Your task to perform on an android device: set the stopwatch Image 0: 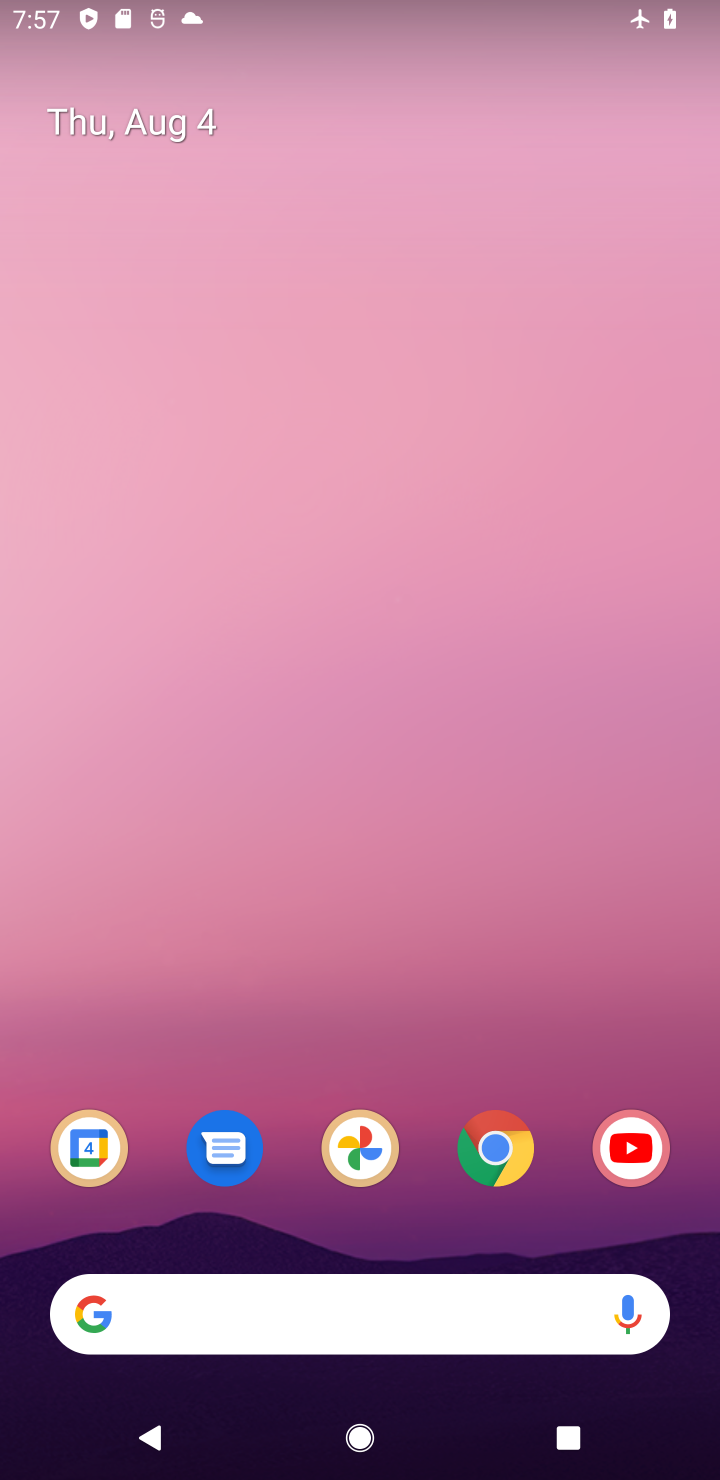
Step 0: drag from (576, 1056) to (181, 29)
Your task to perform on an android device: set the stopwatch Image 1: 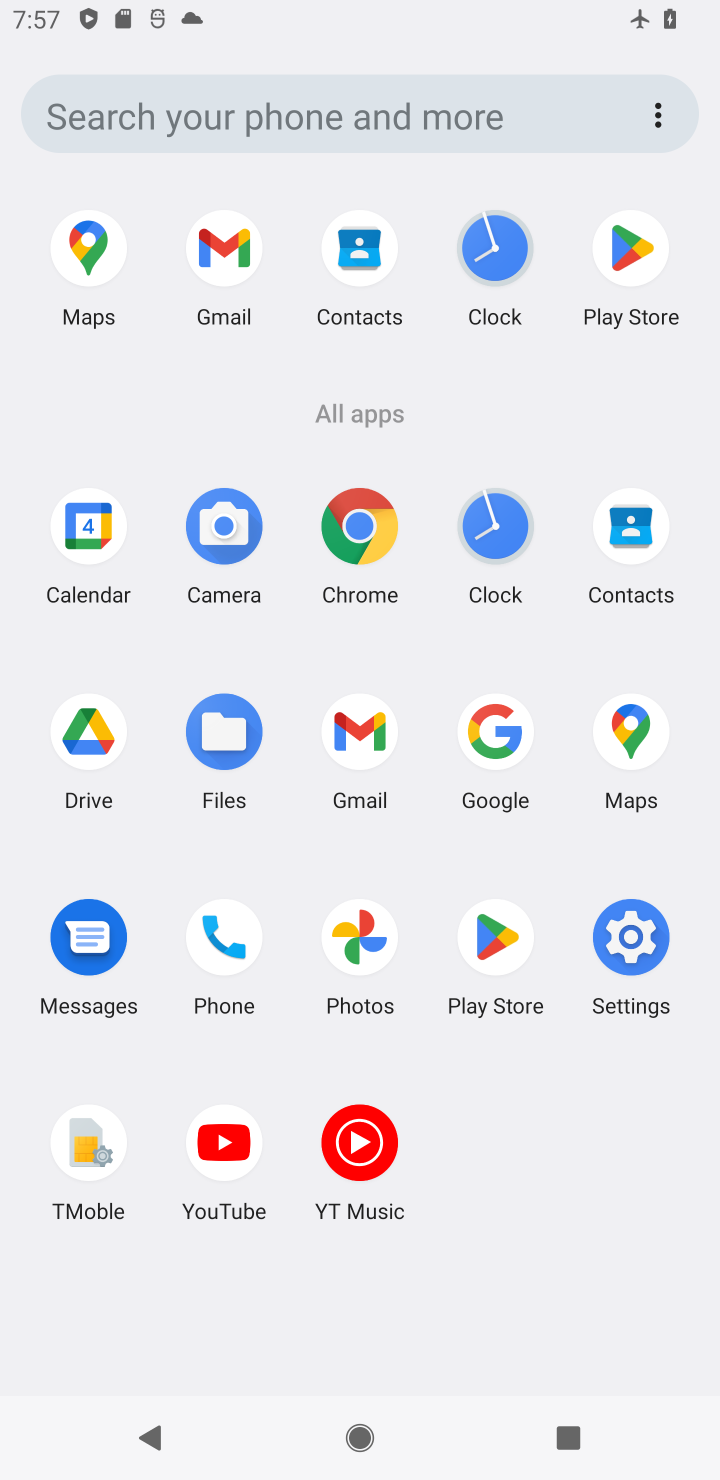
Step 1: click (494, 253)
Your task to perform on an android device: set the stopwatch Image 2: 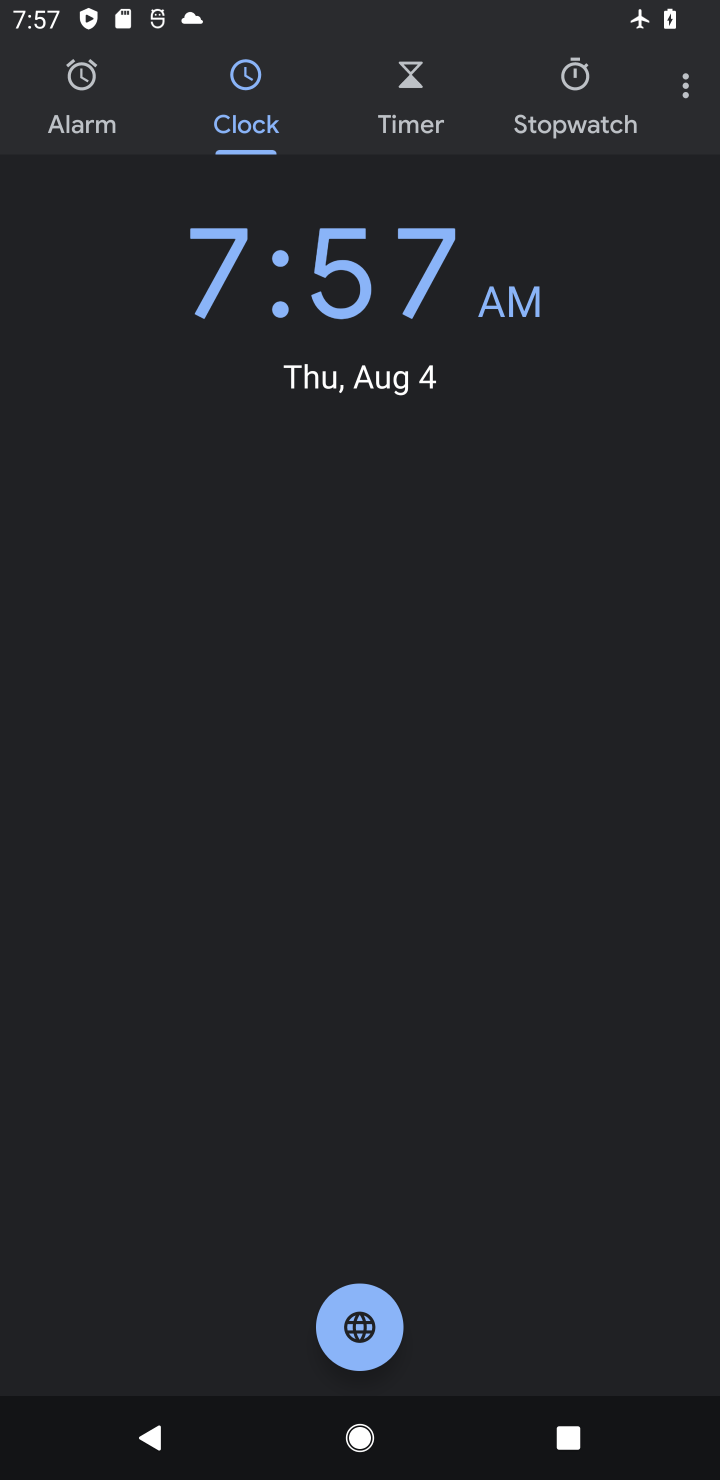
Step 2: click (605, 107)
Your task to perform on an android device: set the stopwatch Image 3: 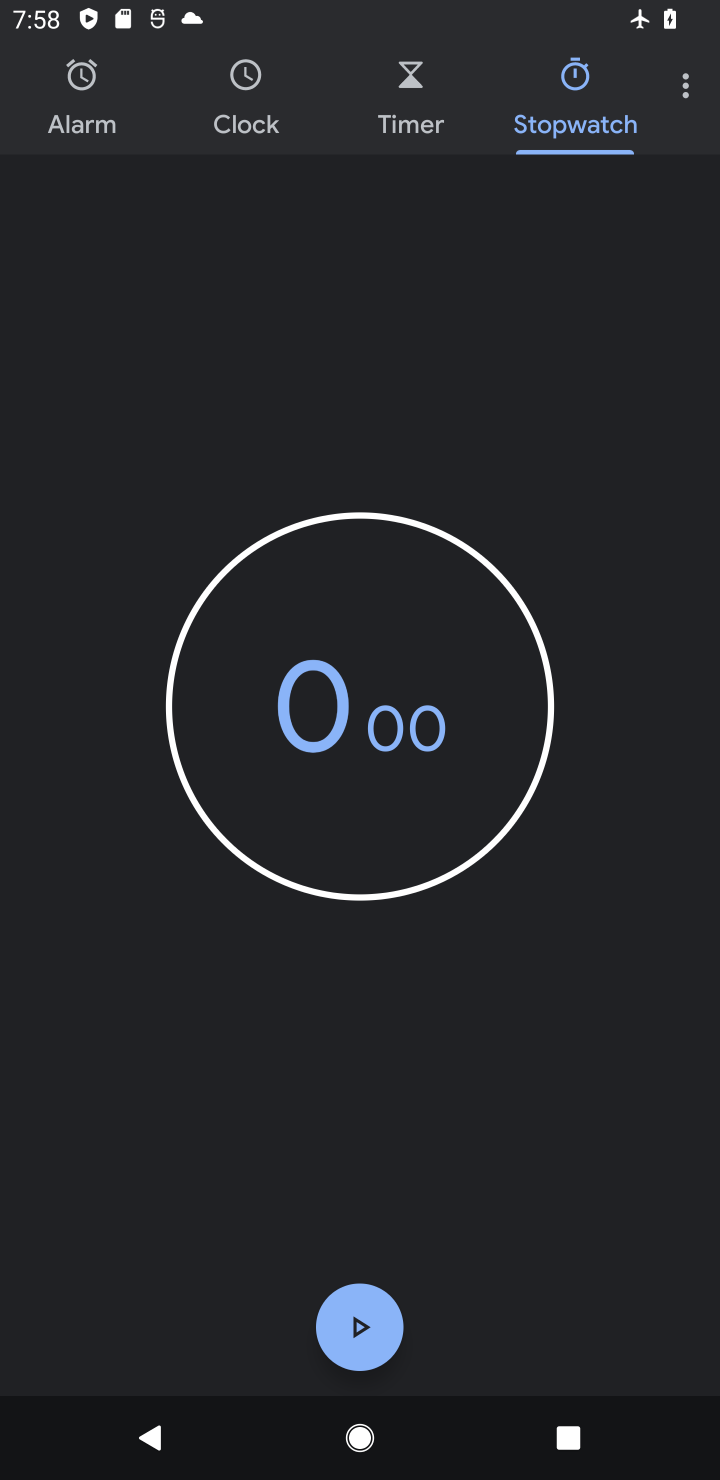
Step 3: click (367, 1344)
Your task to perform on an android device: set the stopwatch Image 4: 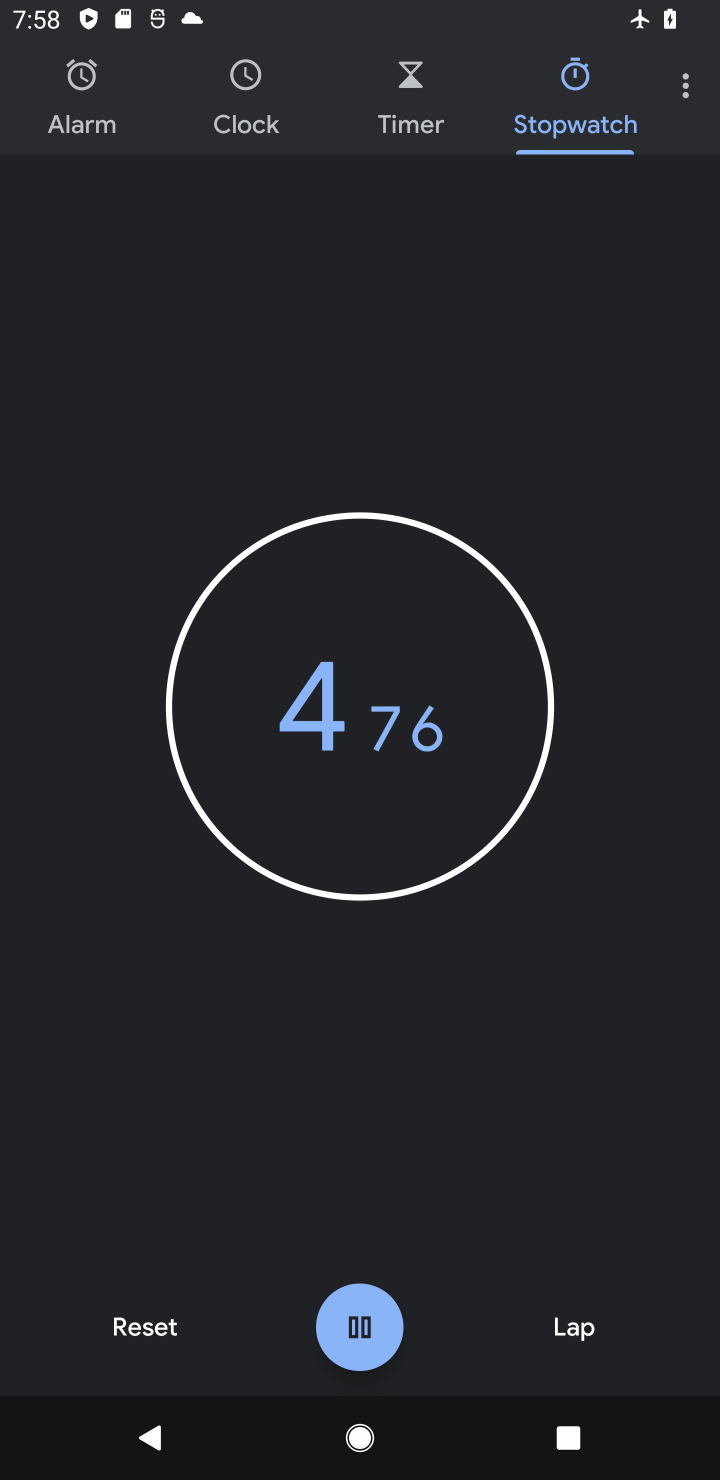
Step 4: task complete